Your task to perform on an android device: Clear the shopping cart on ebay. Search for macbook pro 13 inch on ebay, select the first entry, and add it to the cart. Image 0: 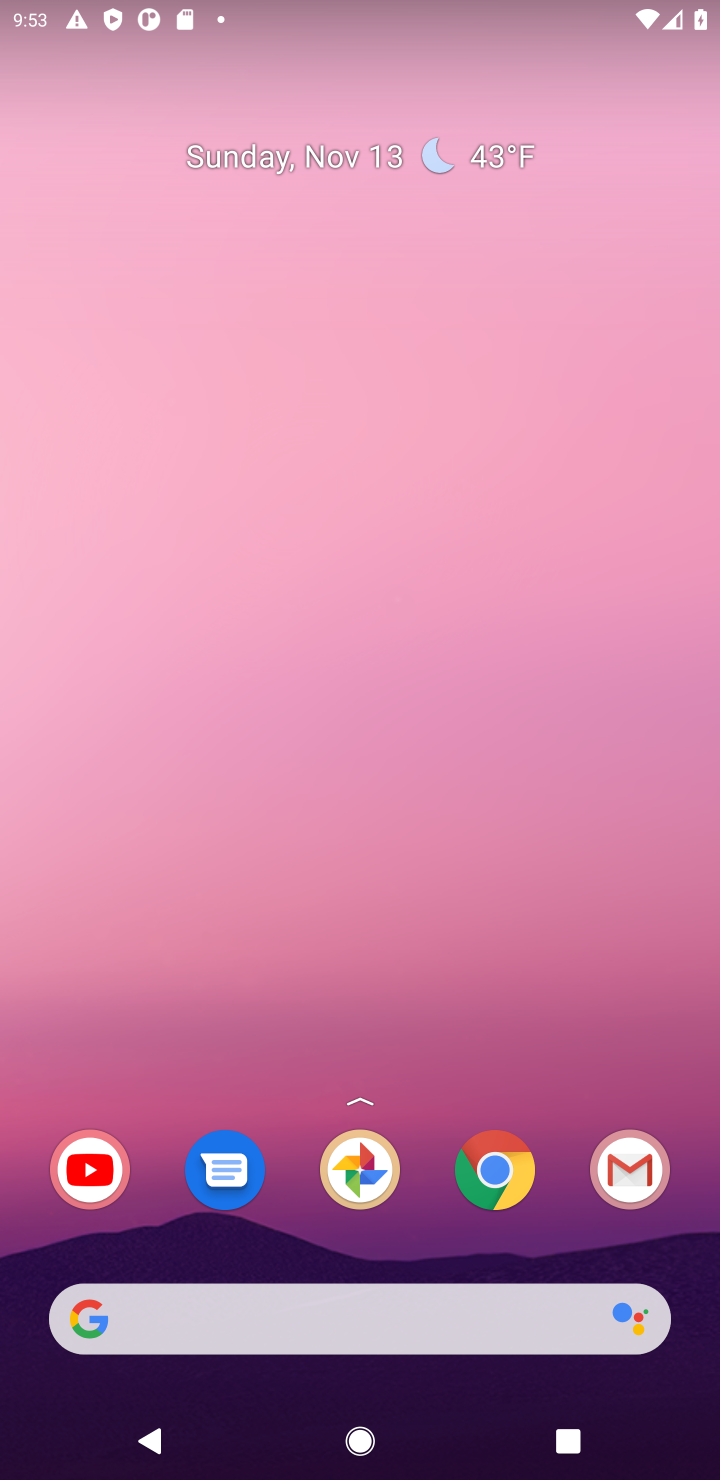
Step 0: drag from (199, 406) to (324, 11)
Your task to perform on an android device: Clear the shopping cart on ebay. Search for macbook pro 13 inch on ebay, select the first entry, and add it to the cart. Image 1: 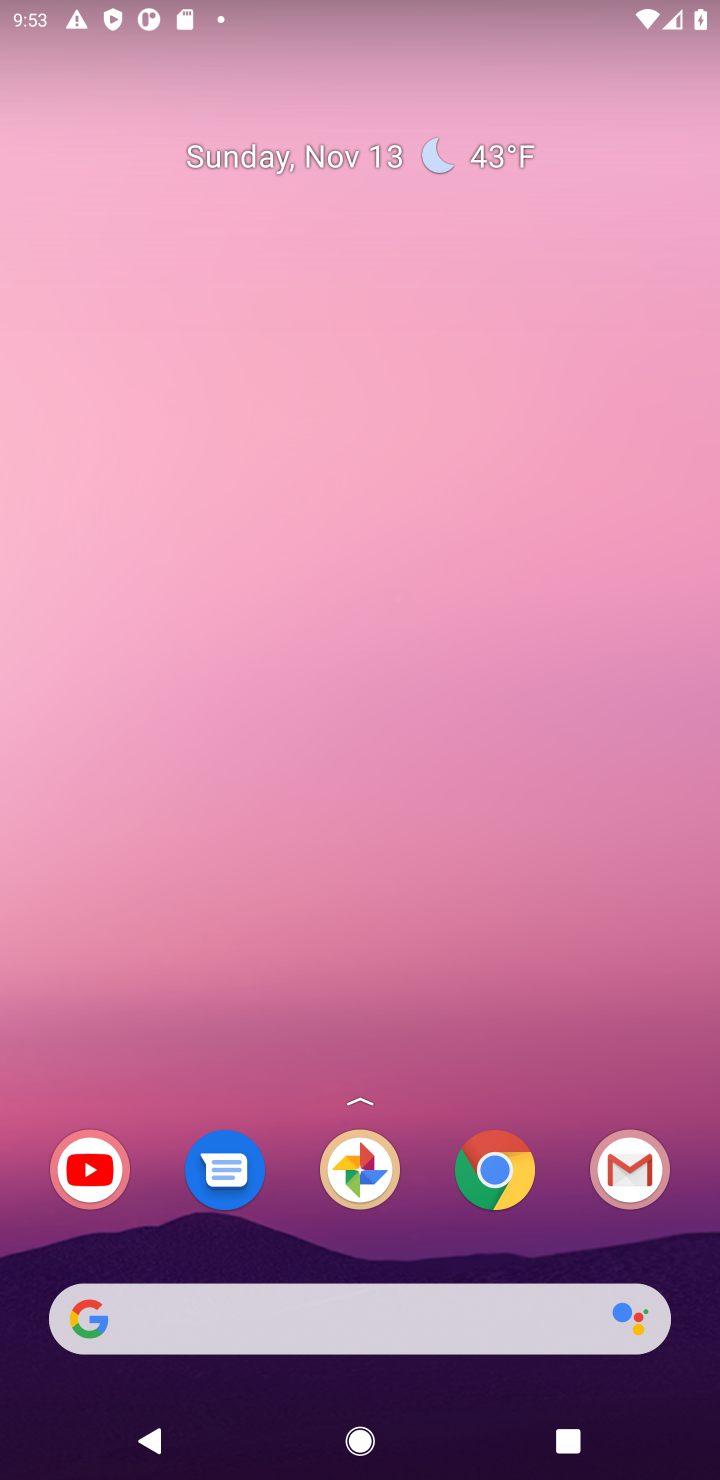
Step 1: drag from (445, 1075) to (354, 114)
Your task to perform on an android device: Clear the shopping cart on ebay. Search for macbook pro 13 inch on ebay, select the first entry, and add it to the cart. Image 2: 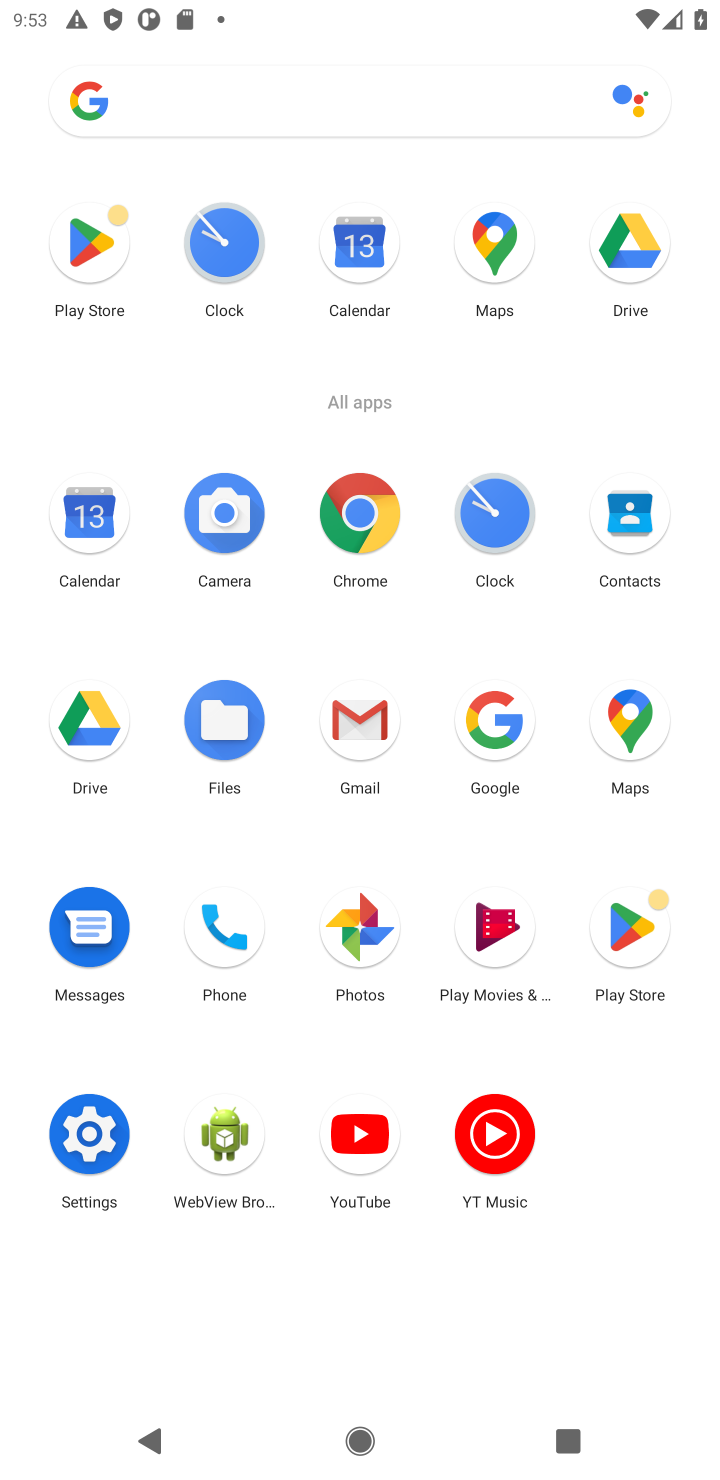
Step 2: click (334, 505)
Your task to perform on an android device: Clear the shopping cart on ebay. Search for macbook pro 13 inch on ebay, select the first entry, and add it to the cart. Image 3: 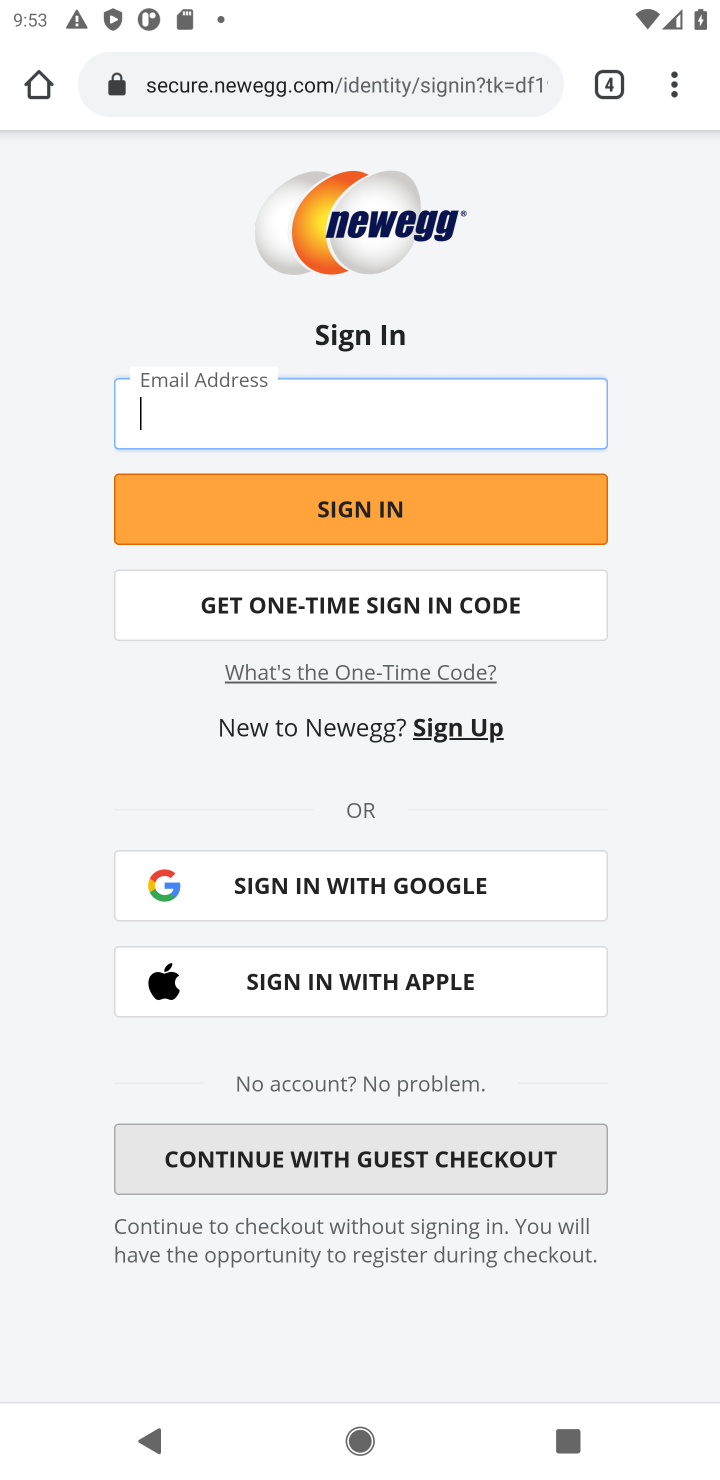
Step 3: click (378, 106)
Your task to perform on an android device: Clear the shopping cart on ebay. Search for macbook pro 13 inch on ebay, select the first entry, and add it to the cart. Image 4: 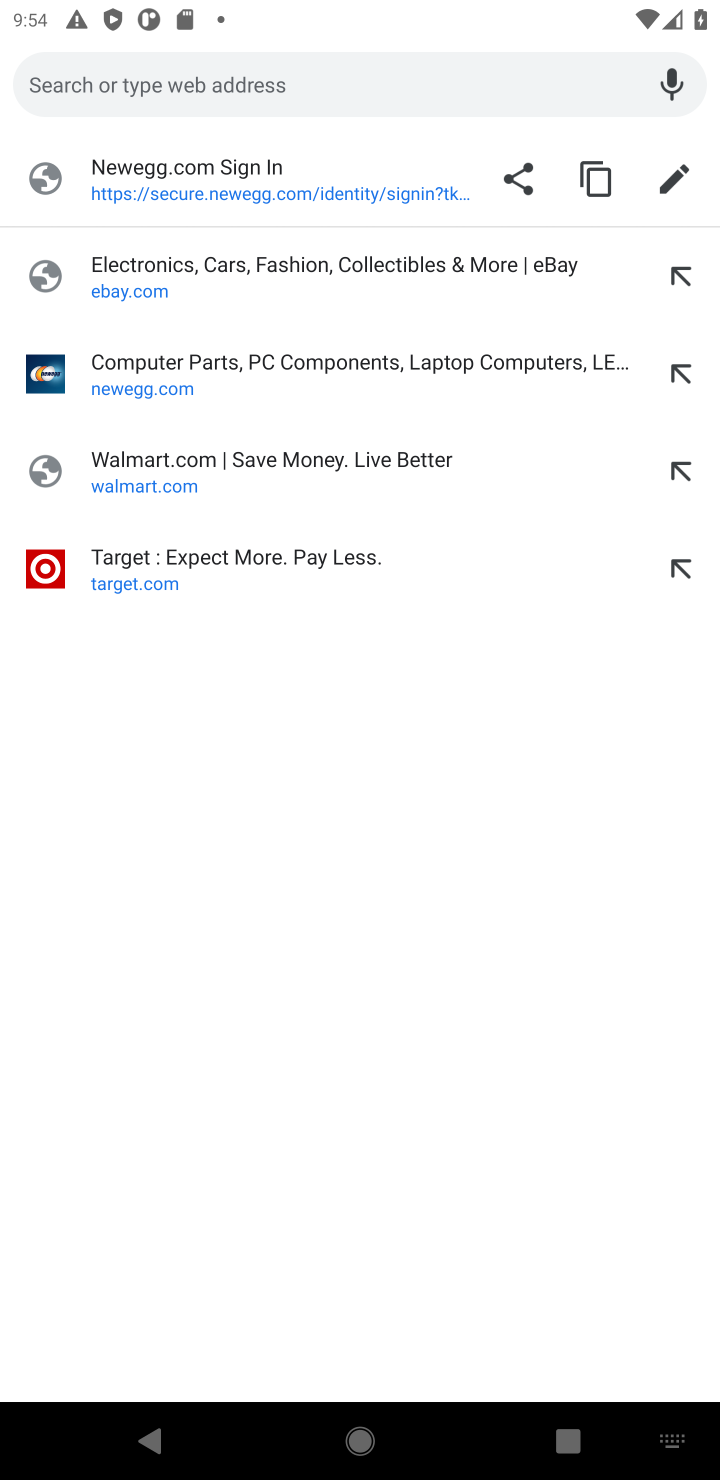
Step 4: type "ebay"
Your task to perform on an android device: Clear the shopping cart on ebay. Search for macbook pro 13 inch on ebay, select the first entry, and add it to the cart. Image 5: 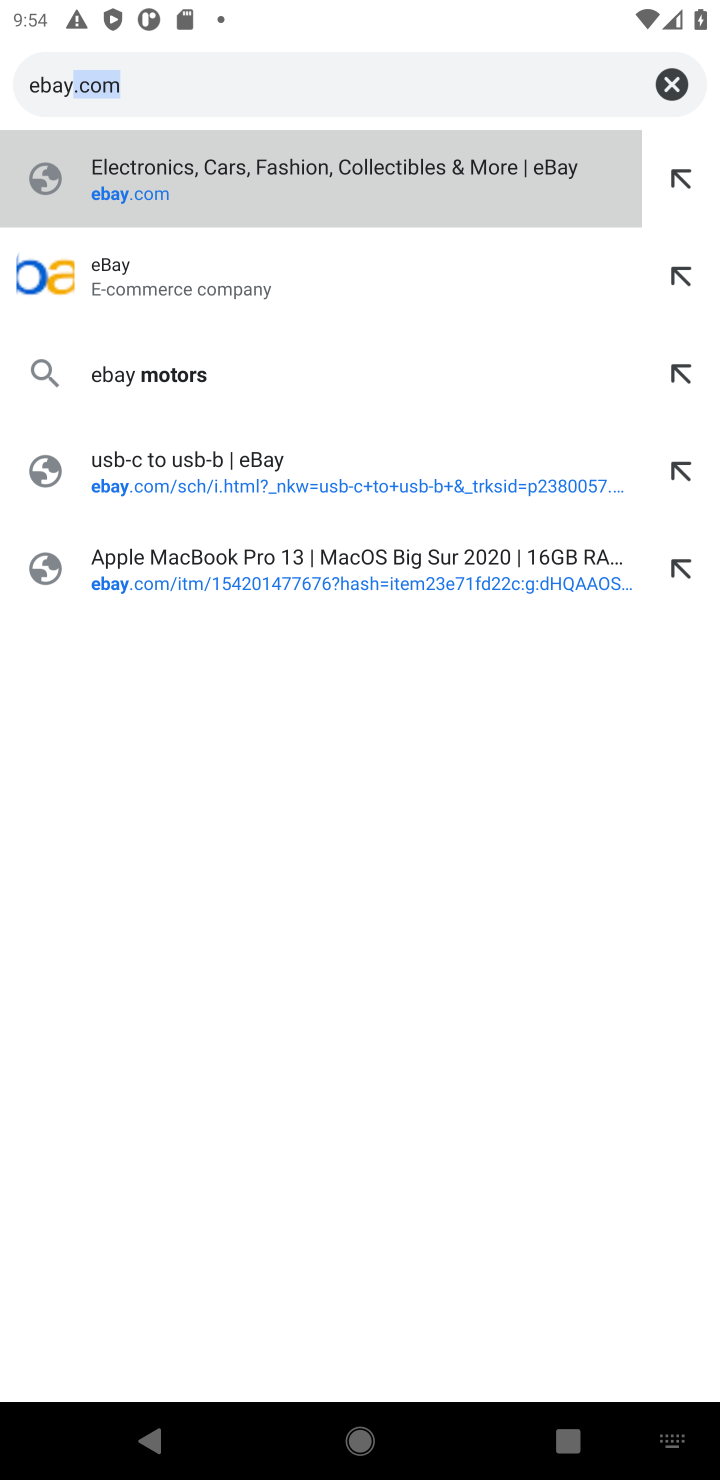
Step 5: press enter
Your task to perform on an android device: Clear the shopping cart on ebay. Search for macbook pro 13 inch on ebay, select the first entry, and add it to the cart. Image 6: 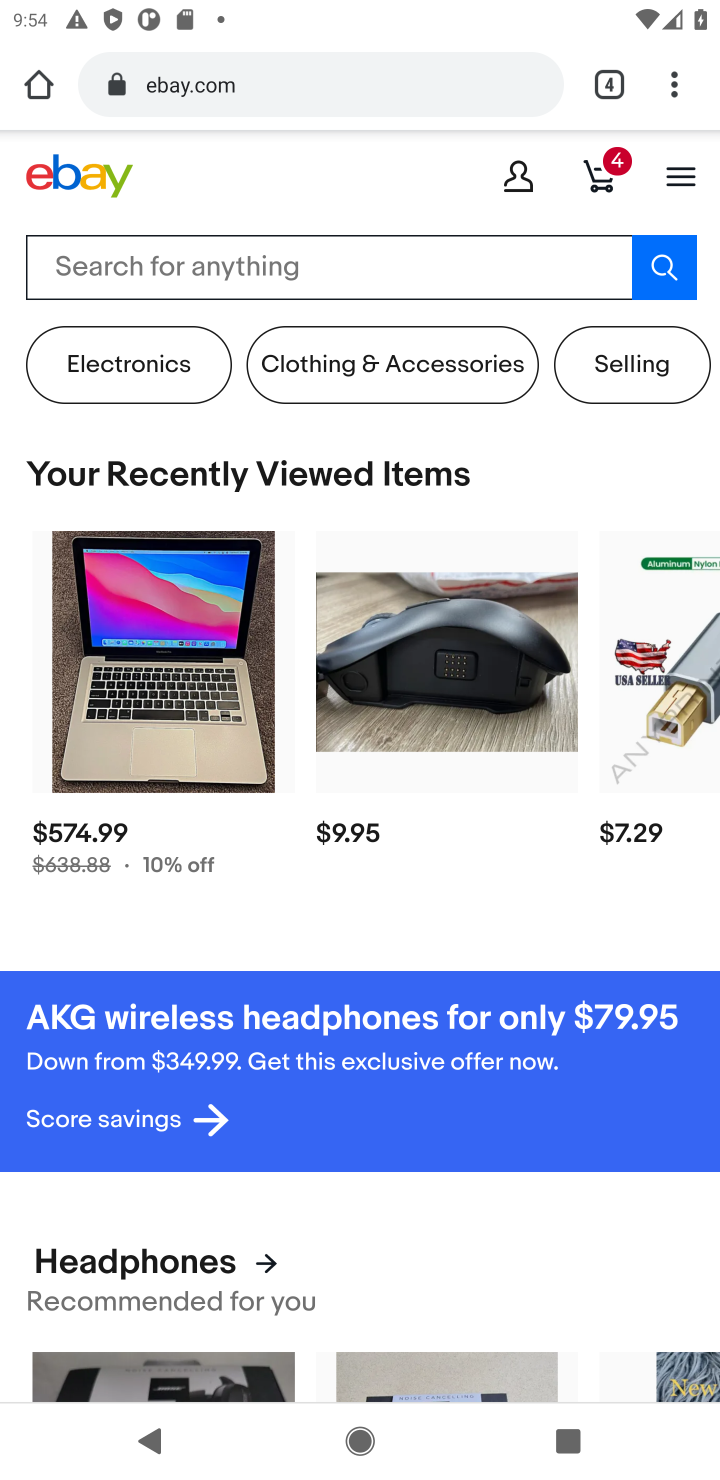
Step 6: click (70, 274)
Your task to perform on an android device: Clear the shopping cart on ebay. Search for macbook pro 13 inch on ebay, select the first entry, and add it to the cart. Image 7: 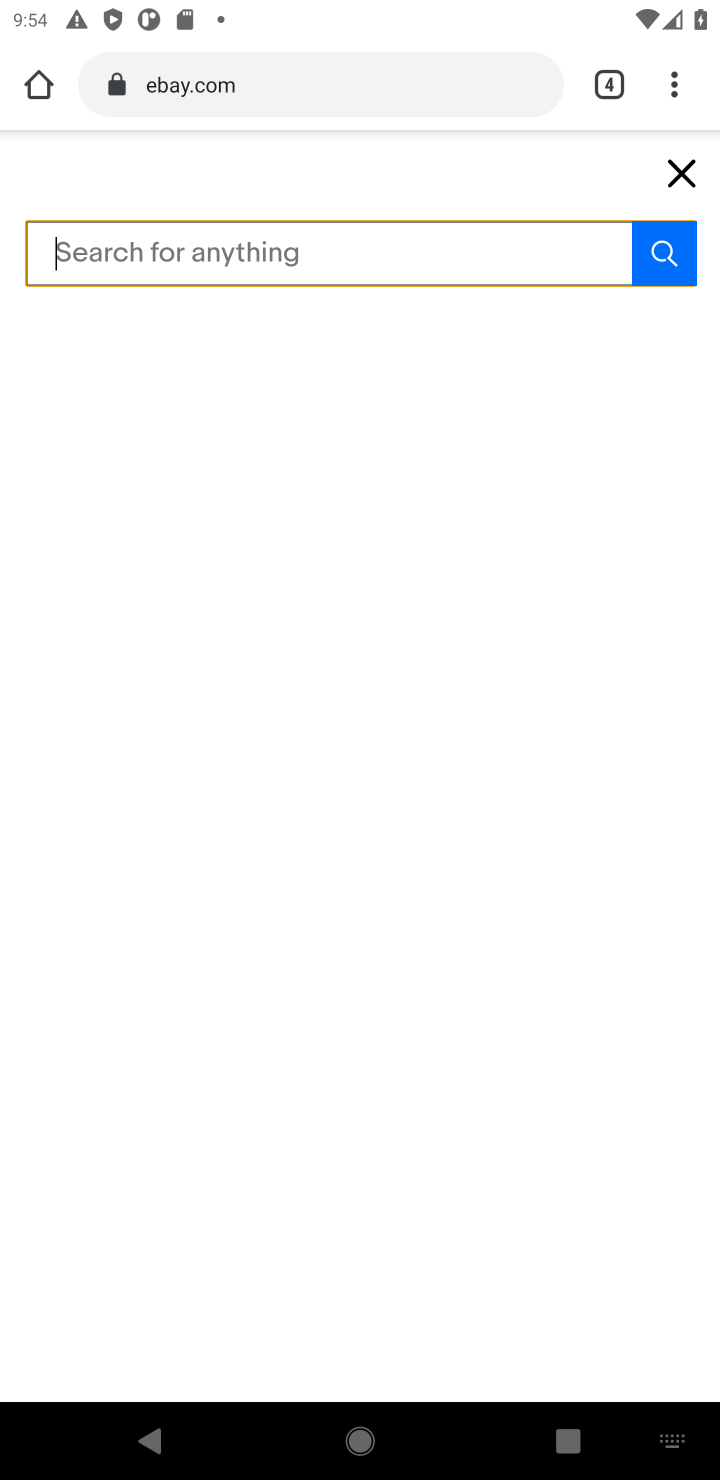
Step 7: type "macbook pro 13 inch "
Your task to perform on an android device: Clear the shopping cart on ebay. Search for macbook pro 13 inch on ebay, select the first entry, and add it to the cart. Image 8: 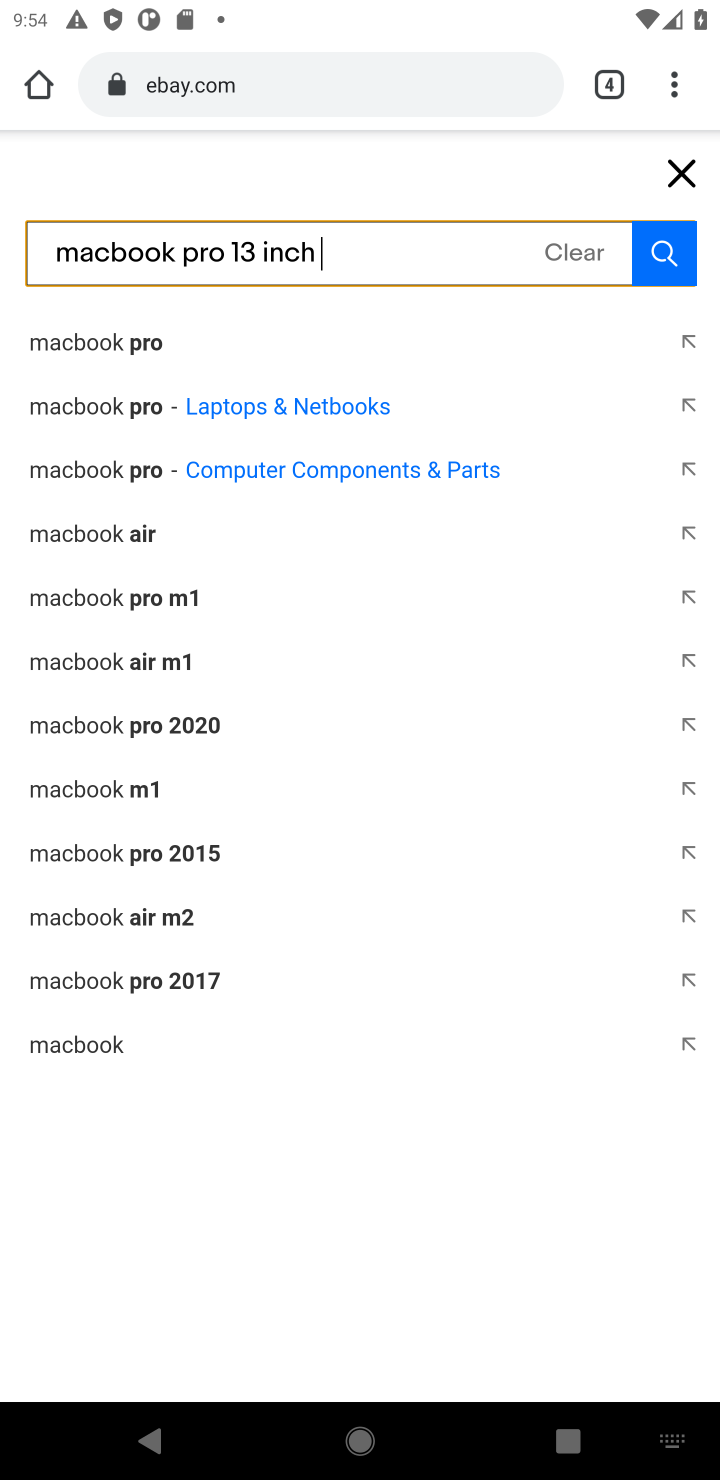
Step 8: press enter
Your task to perform on an android device: Clear the shopping cart on ebay. Search for macbook pro 13 inch on ebay, select the first entry, and add it to the cart. Image 9: 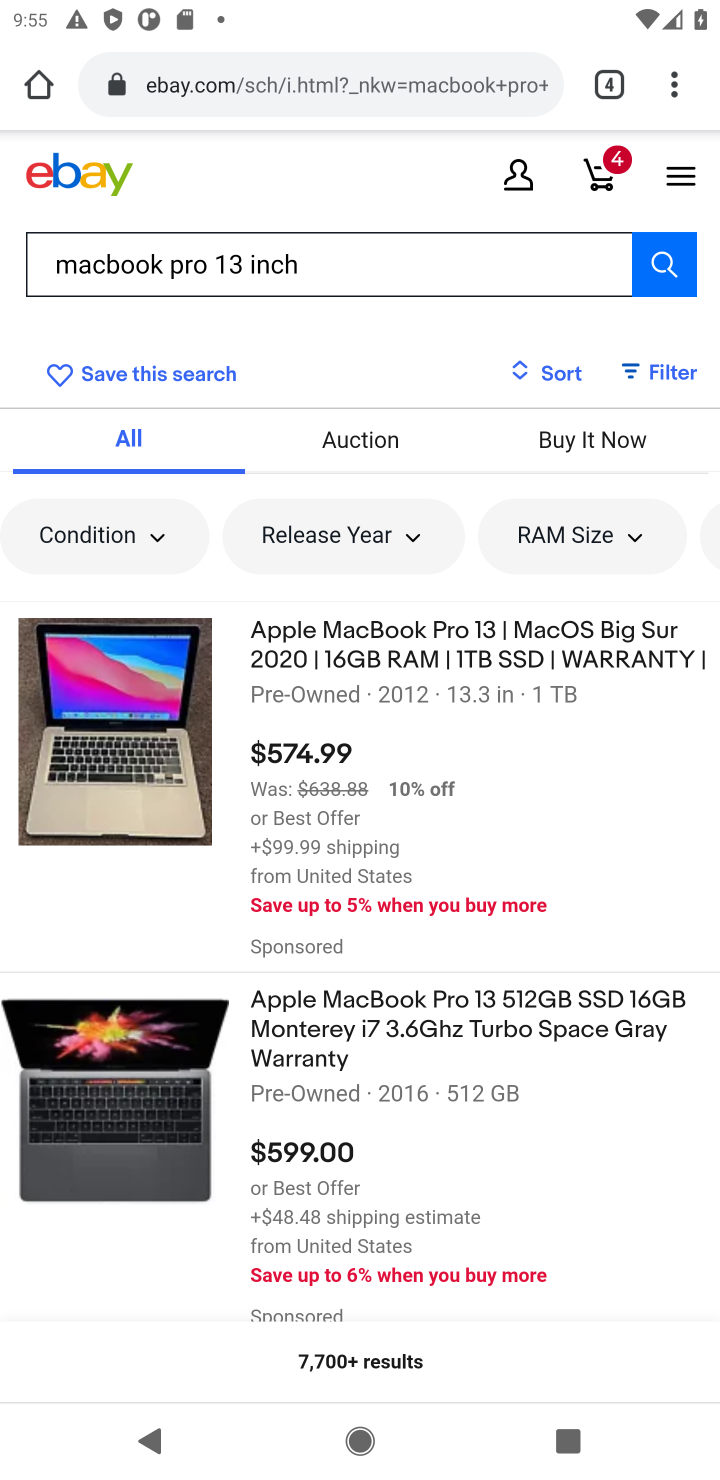
Step 9: click (331, 633)
Your task to perform on an android device: Clear the shopping cart on ebay. Search for macbook pro 13 inch on ebay, select the first entry, and add it to the cart. Image 10: 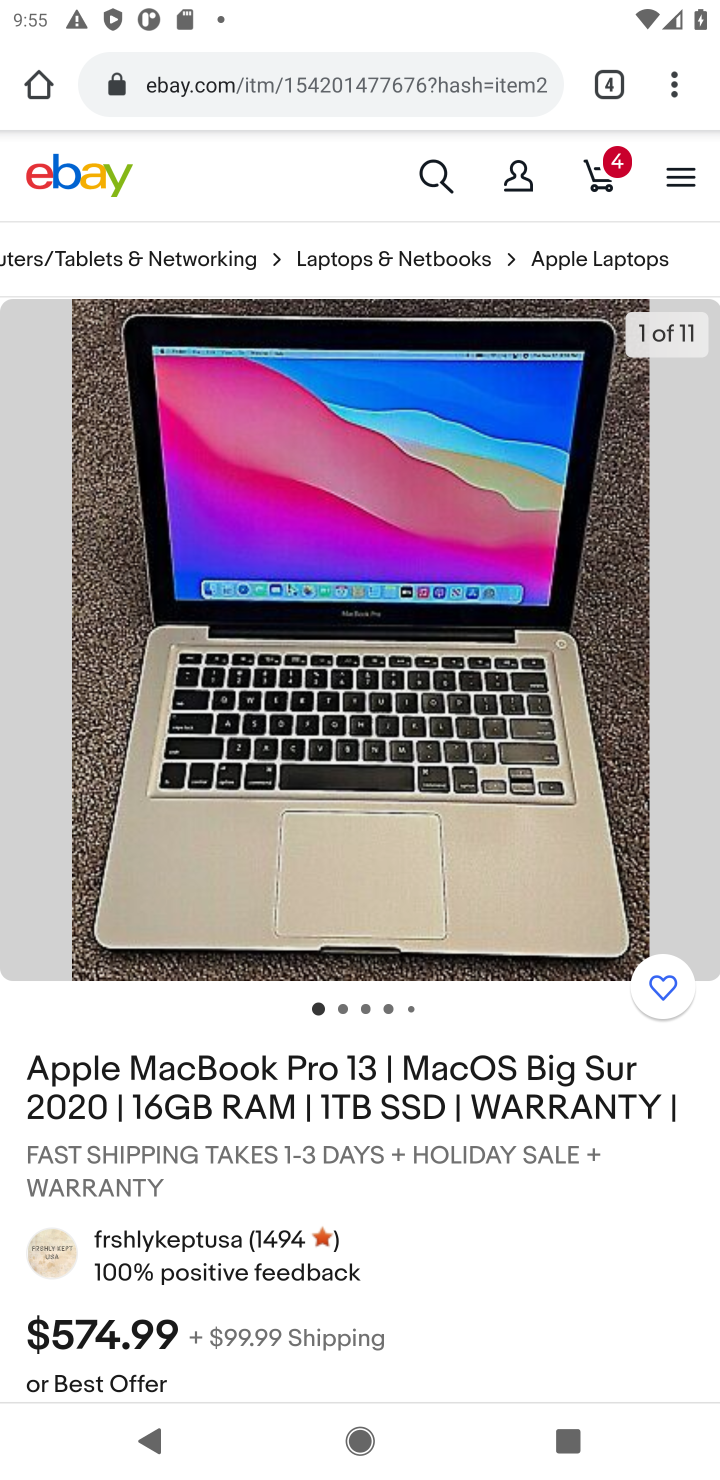
Step 10: drag from (262, 594) to (330, 370)
Your task to perform on an android device: Clear the shopping cart on ebay. Search for macbook pro 13 inch on ebay, select the first entry, and add it to the cart. Image 11: 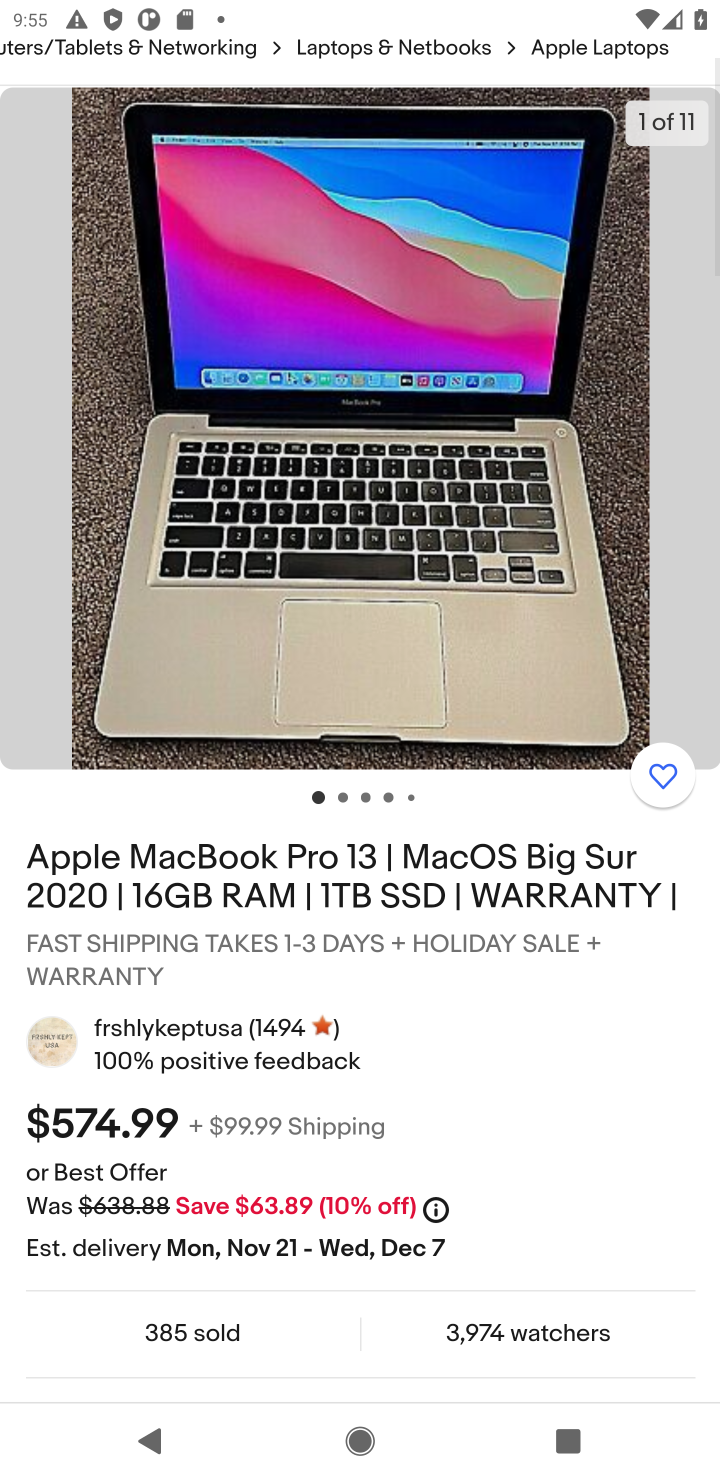
Step 11: drag from (333, 937) to (321, 458)
Your task to perform on an android device: Clear the shopping cart on ebay. Search for macbook pro 13 inch on ebay, select the first entry, and add it to the cart. Image 12: 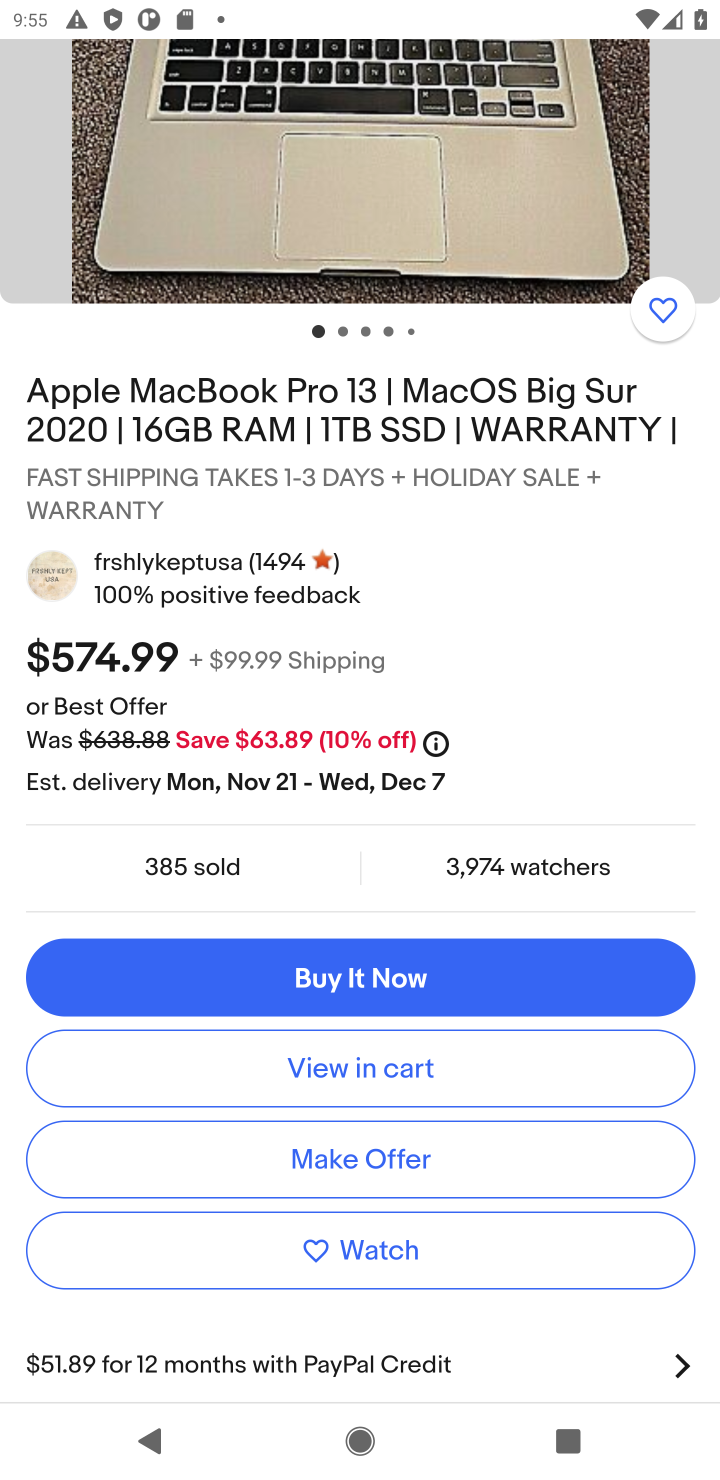
Step 12: click (435, 1081)
Your task to perform on an android device: Clear the shopping cart on ebay. Search for macbook pro 13 inch on ebay, select the first entry, and add it to the cart. Image 13: 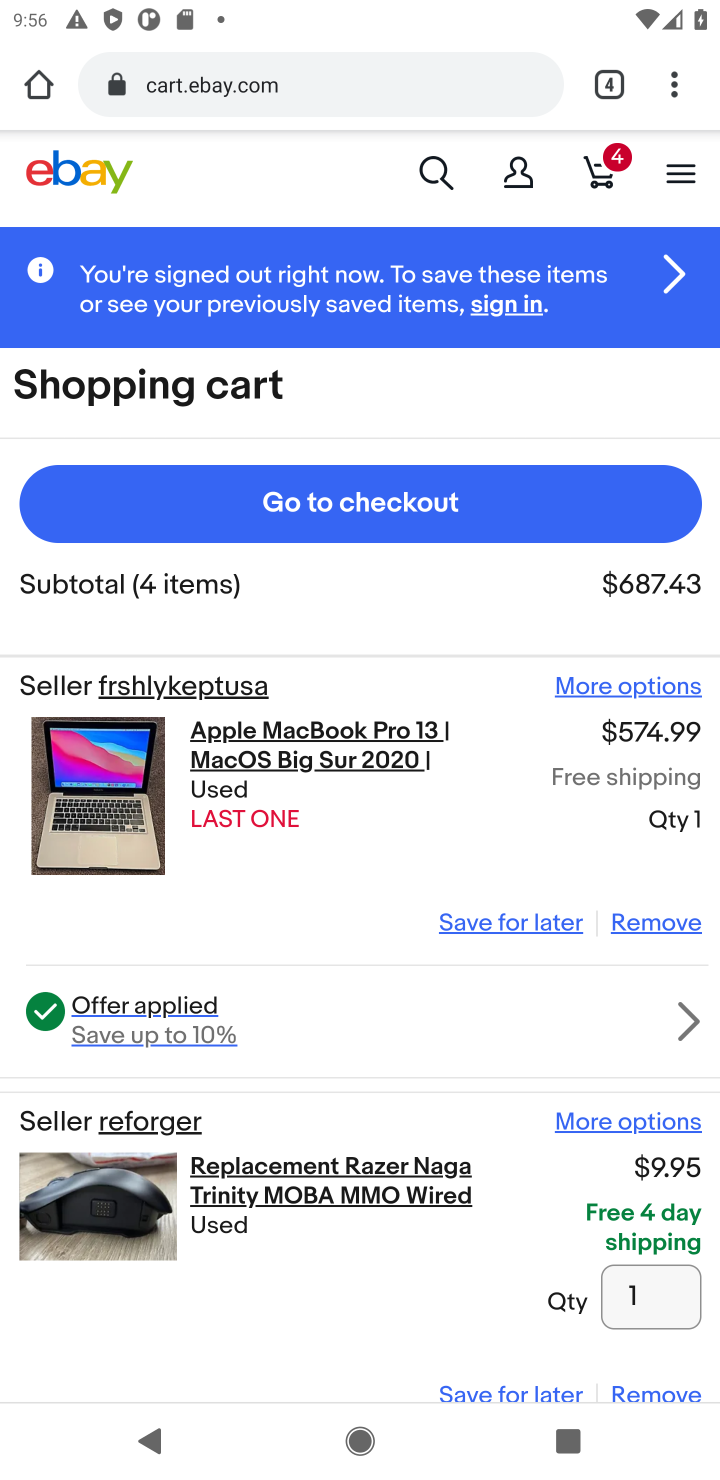
Step 13: click (349, 516)
Your task to perform on an android device: Clear the shopping cart on ebay. Search for macbook pro 13 inch on ebay, select the first entry, and add it to the cart. Image 14: 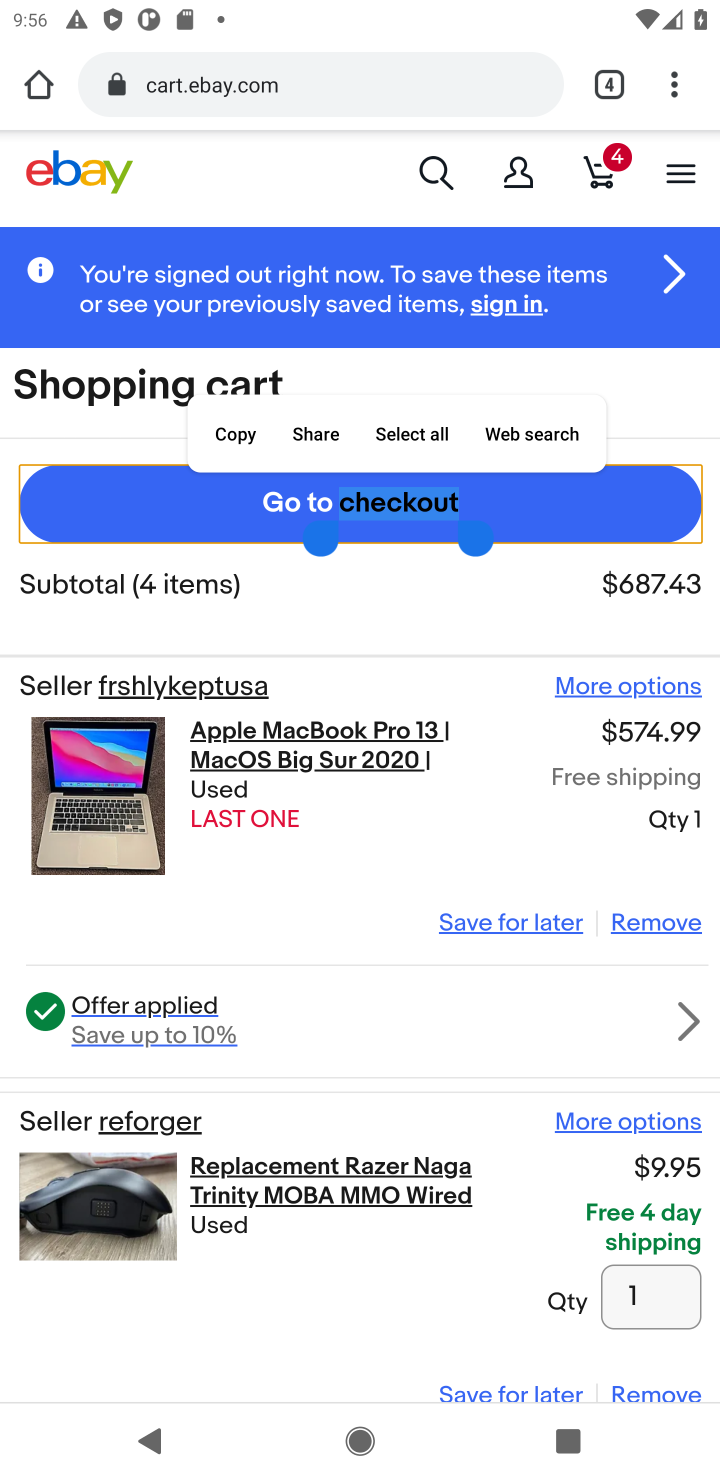
Step 14: click (425, 611)
Your task to perform on an android device: Clear the shopping cart on ebay. Search for macbook pro 13 inch on ebay, select the first entry, and add it to the cart. Image 15: 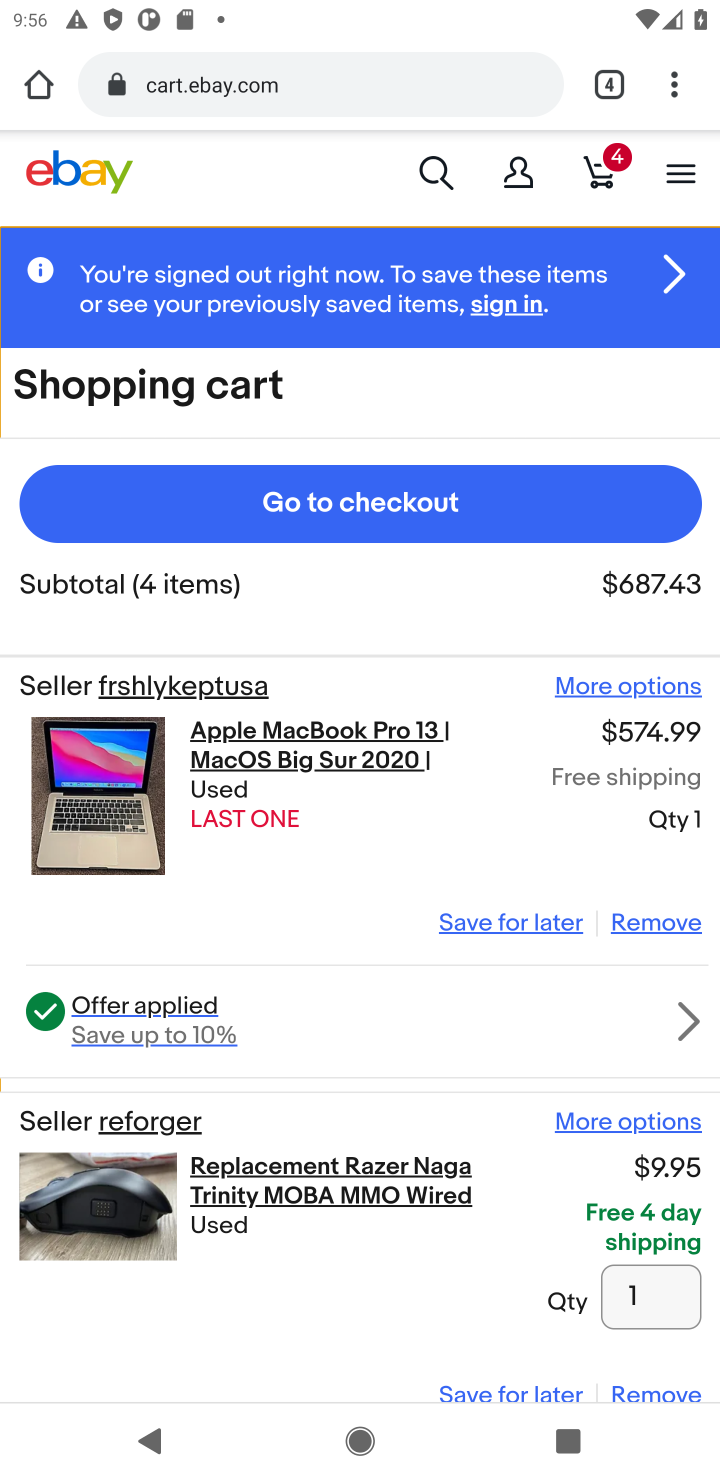
Step 15: click (346, 490)
Your task to perform on an android device: Clear the shopping cart on ebay. Search for macbook pro 13 inch on ebay, select the first entry, and add it to the cart. Image 16: 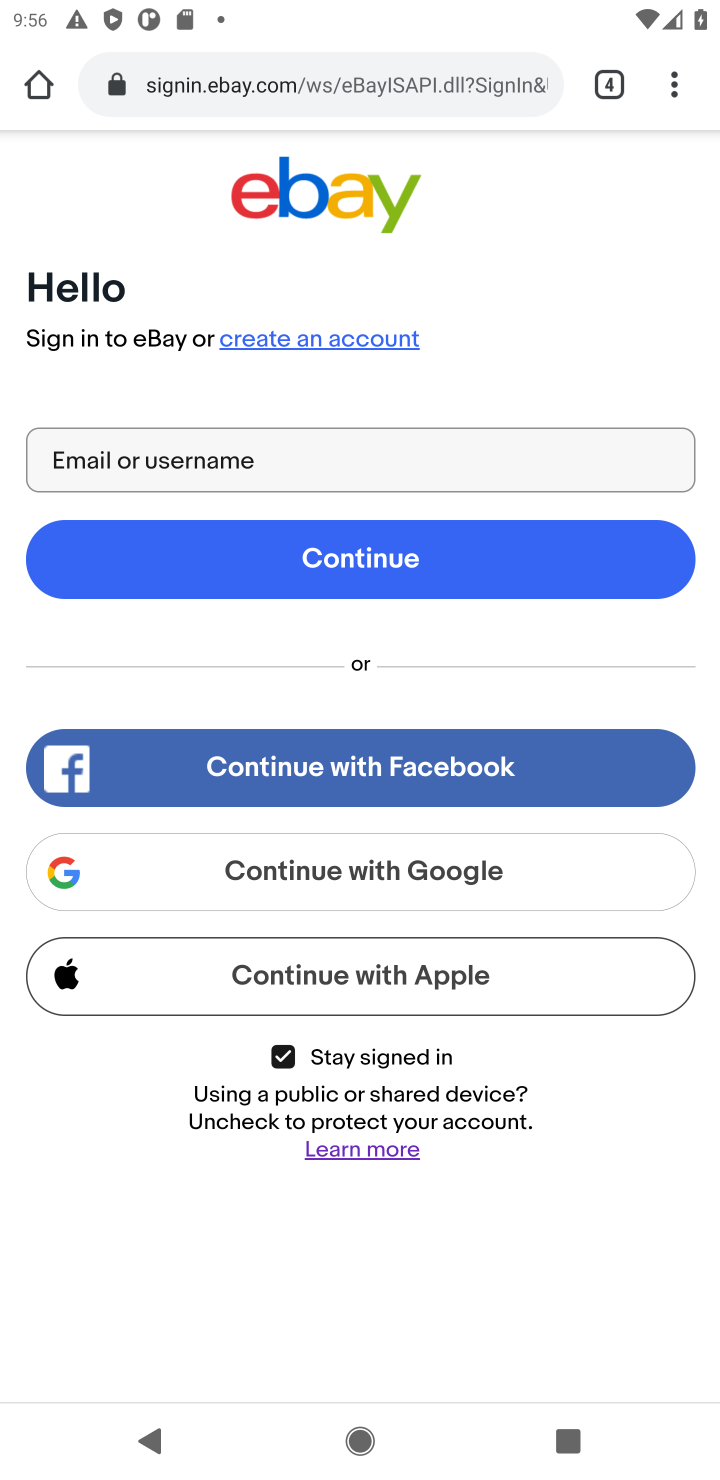
Step 16: task complete